Your task to perform on an android device: Open the calendar app, open the side menu, and click the "Day" option Image 0: 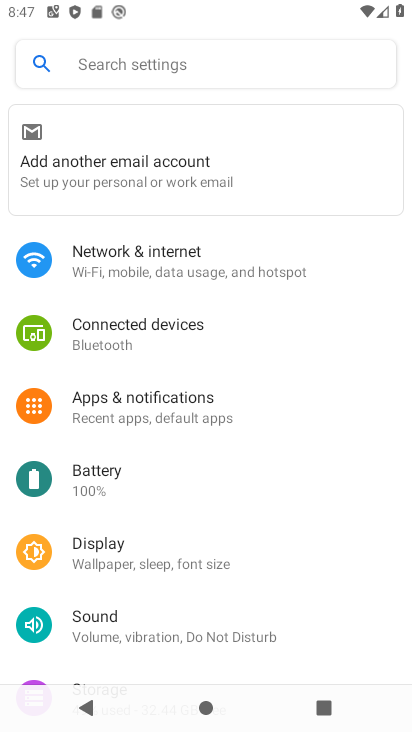
Step 0: press home button
Your task to perform on an android device: Open the calendar app, open the side menu, and click the "Day" option Image 1: 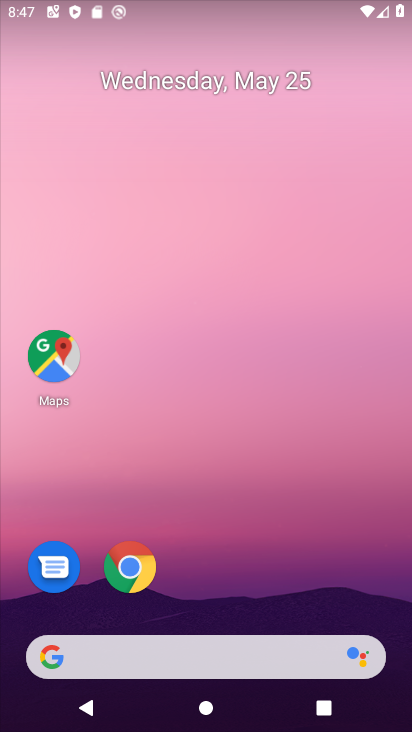
Step 1: drag from (252, 486) to (249, 46)
Your task to perform on an android device: Open the calendar app, open the side menu, and click the "Day" option Image 2: 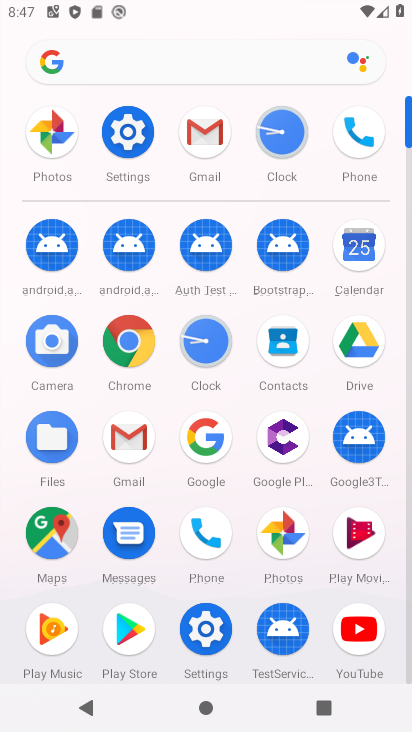
Step 2: click (364, 242)
Your task to perform on an android device: Open the calendar app, open the side menu, and click the "Day" option Image 3: 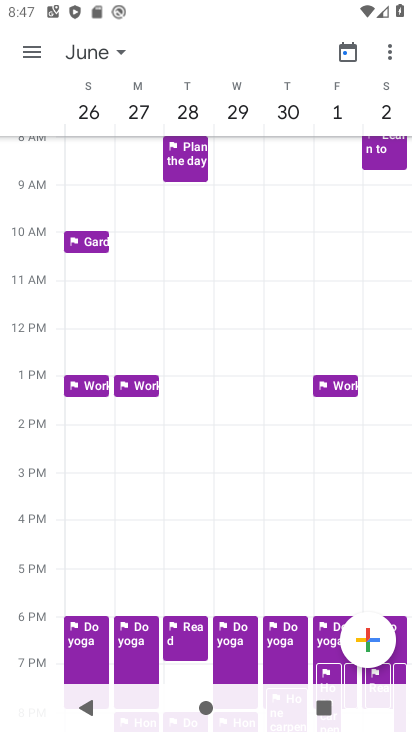
Step 3: click (28, 48)
Your task to perform on an android device: Open the calendar app, open the side menu, and click the "Day" option Image 4: 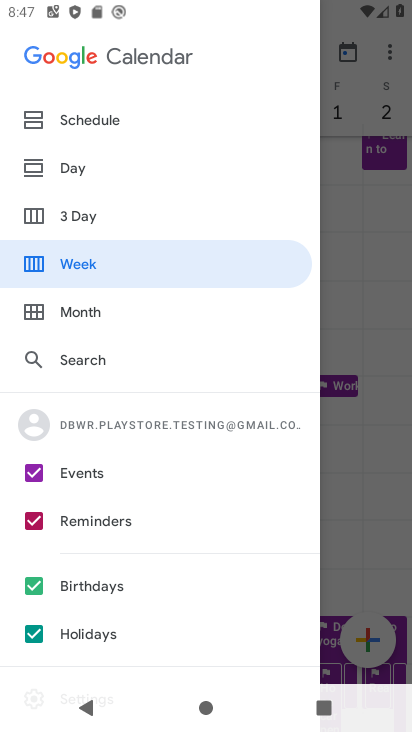
Step 4: click (62, 163)
Your task to perform on an android device: Open the calendar app, open the side menu, and click the "Day" option Image 5: 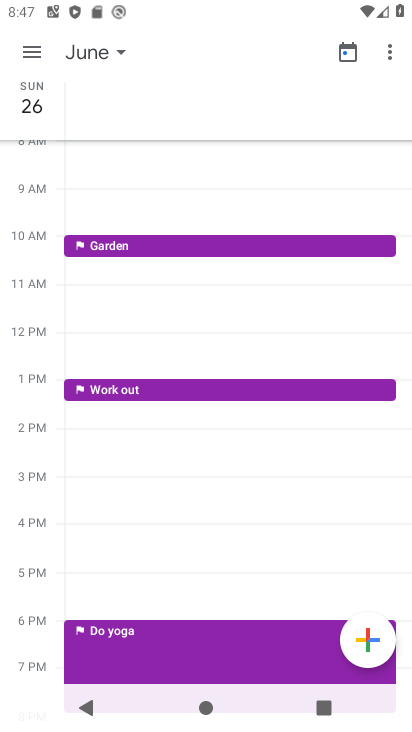
Step 5: task complete